Your task to perform on an android device: Go to Google maps Image 0: 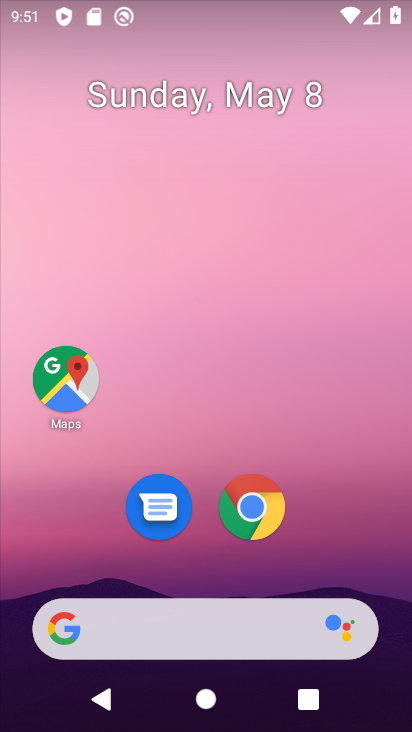
Step 0: drag from (210, 563) to (190, 78)
Your task to perform on an android device: Go to Google maps Image 1: 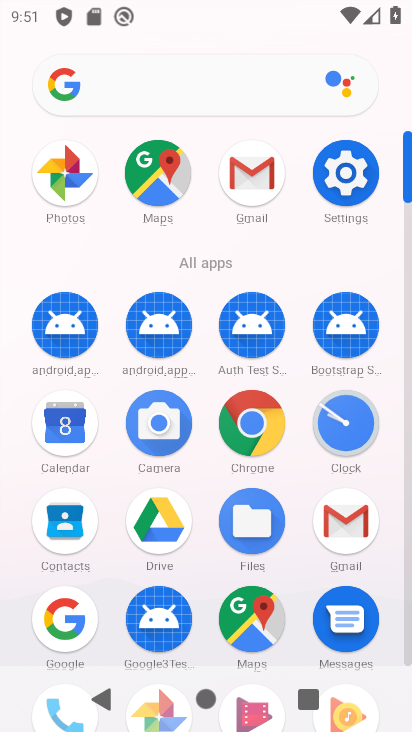
Step 1: click (159, 170)
Your task to perform on an android device: Go to Google maps Image 2: 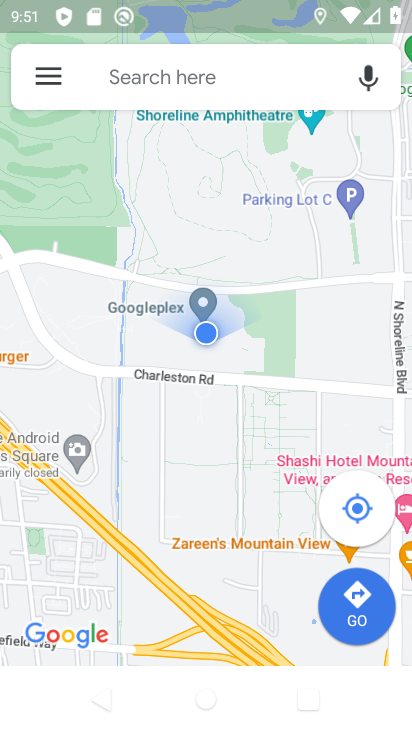
Step 2: task complete